Your task to perform on an android device: delete a single message in the gmail app Image 0: 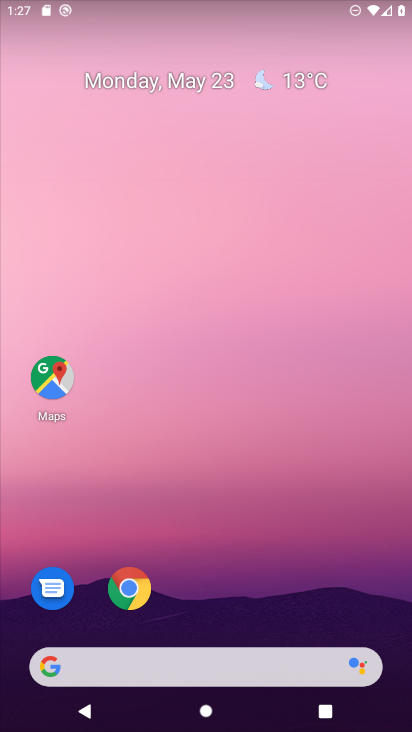
Step 0: drag from (222, 641) to (222, 346)
Your task to perform on an android device: delete a single message in the gmail app Image 1: 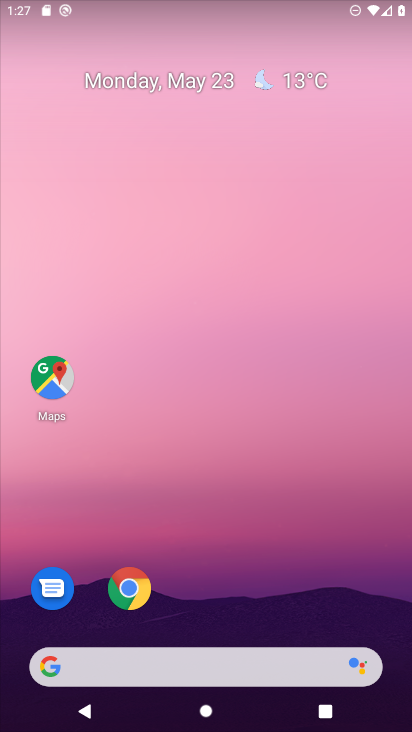
Step 1: drag from (248, 664) to (268, 206)
Your task to perform on an android device: delete a single message in the gmail app Image 2: 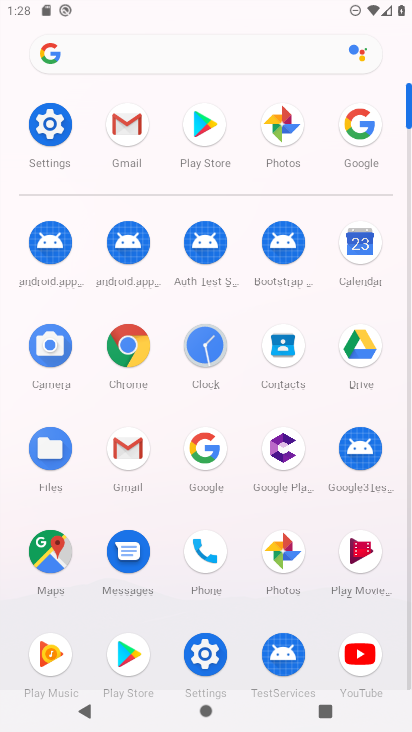
Step 2: click (132, 133)
Your task to perform on an android device: delete a single message in the gmail app Image 3: 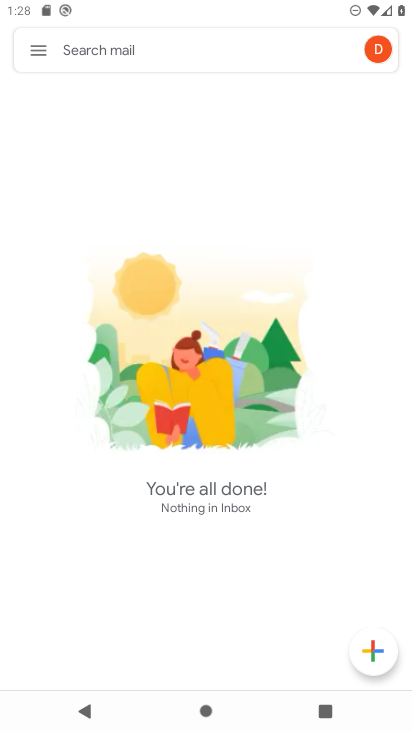
Step 3: task complete